Your task to perform on an android device: Search for asus zenbook on bestbuy.com, select the first entry, add it to the cart, then select checkout. Image 0: 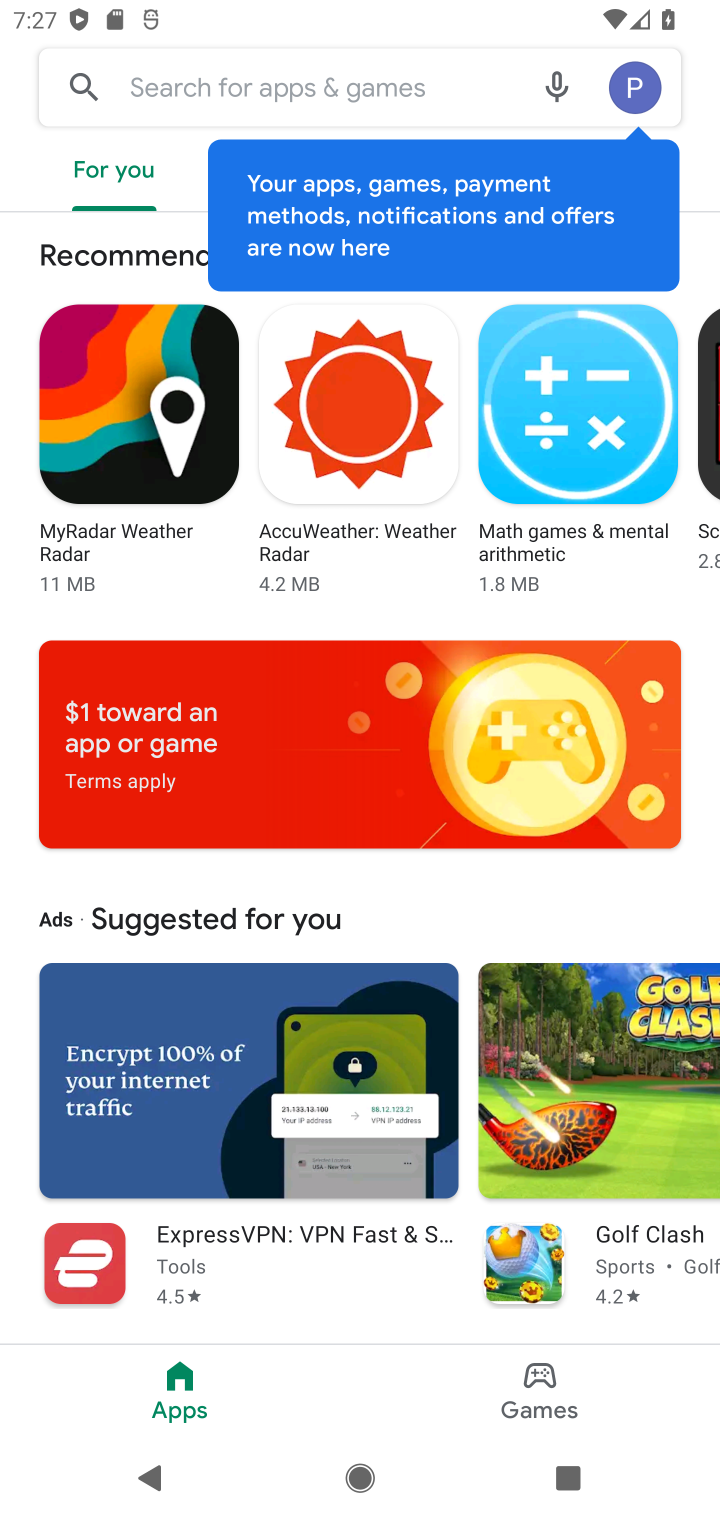
Step 0: press home button
Your task to perform on an android device: Search for asus zenbook on bestbuy.com, select the first entry, add it to the cart, then select checkout. Image 1: 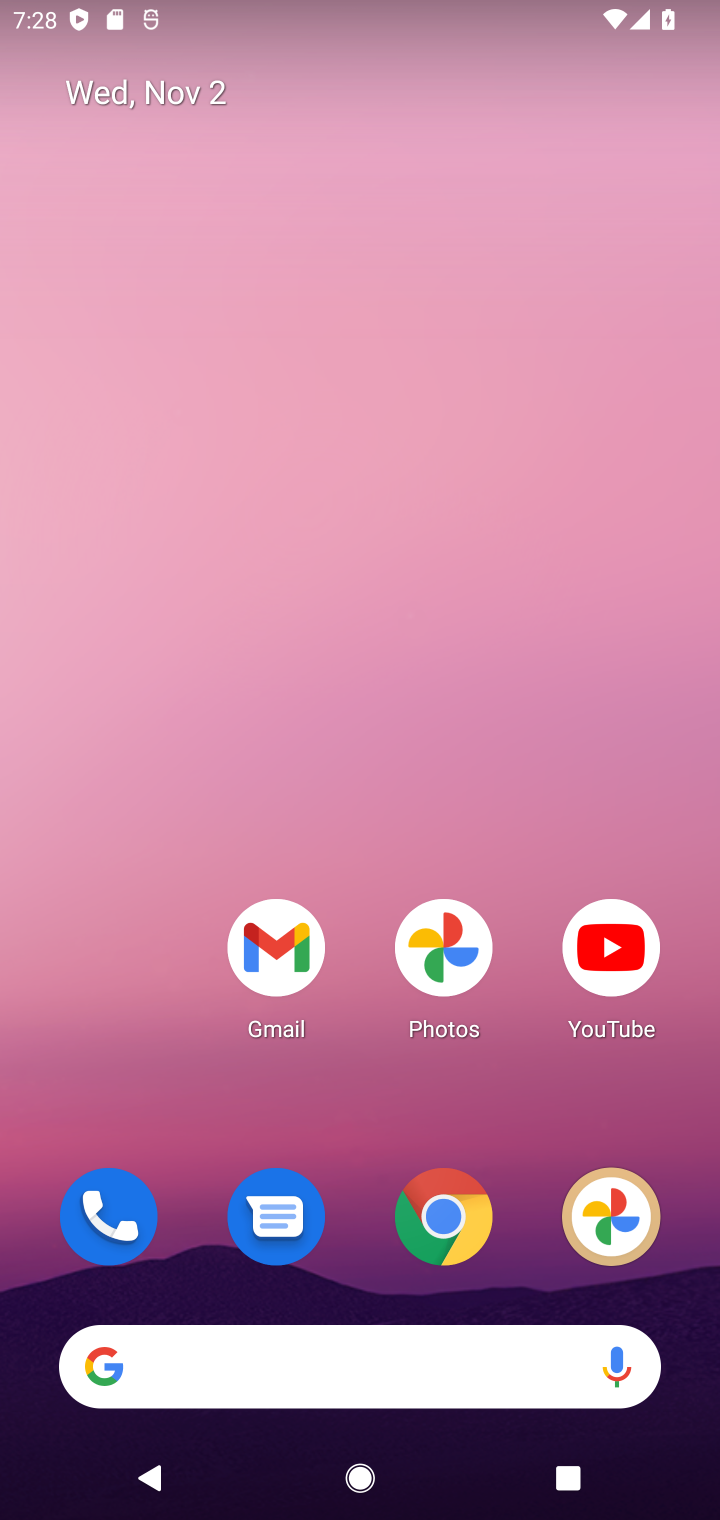
Step 1: click (446, 1226)
Your task to perform on an android device: Search for asus zenbook on bestbuy.com, select the first entry, add it to the cart, then select checkout. Image 2: 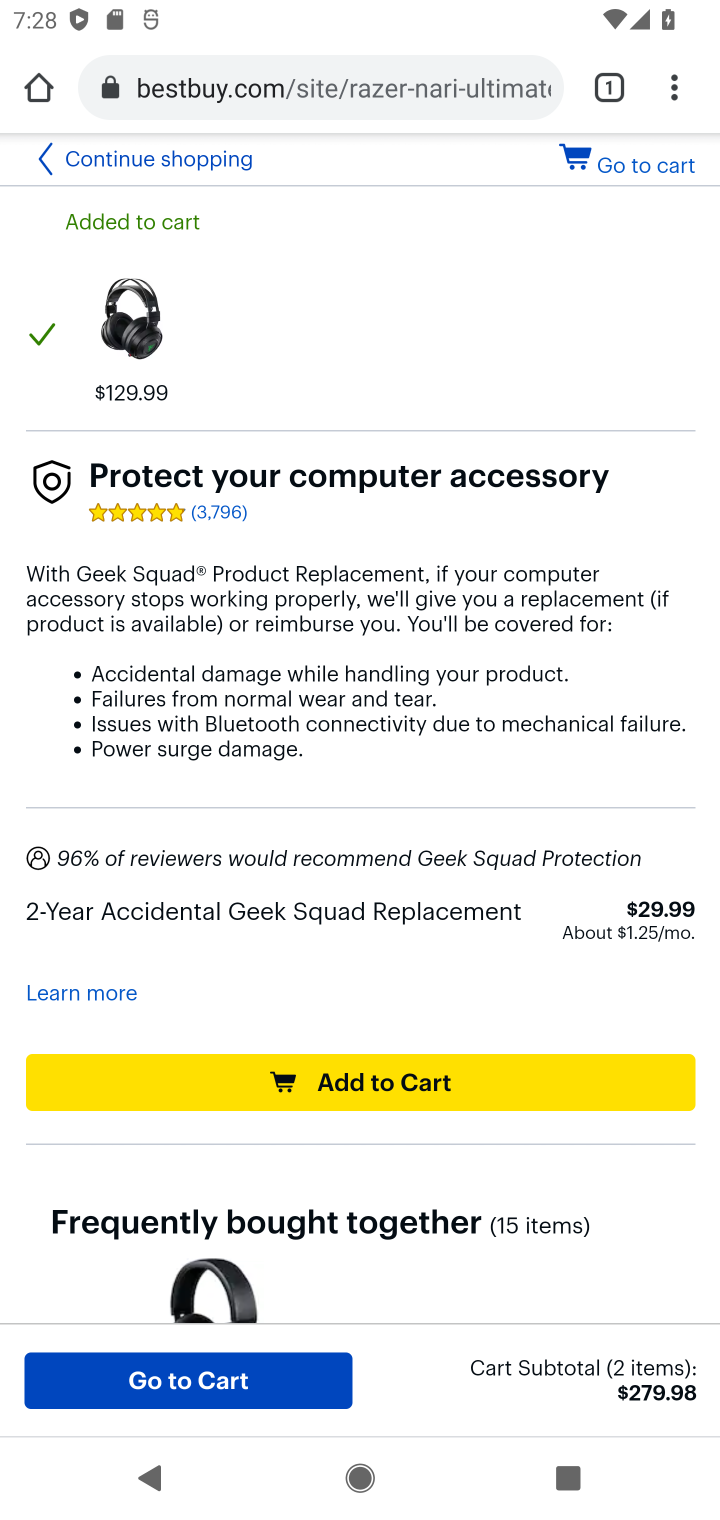
Step 2: click (335, 89)
Your task to perform on an android device: Search for asus zenbook on bestbuy.com, select the first entry, add it to the cart, then select checkout. Image 3: 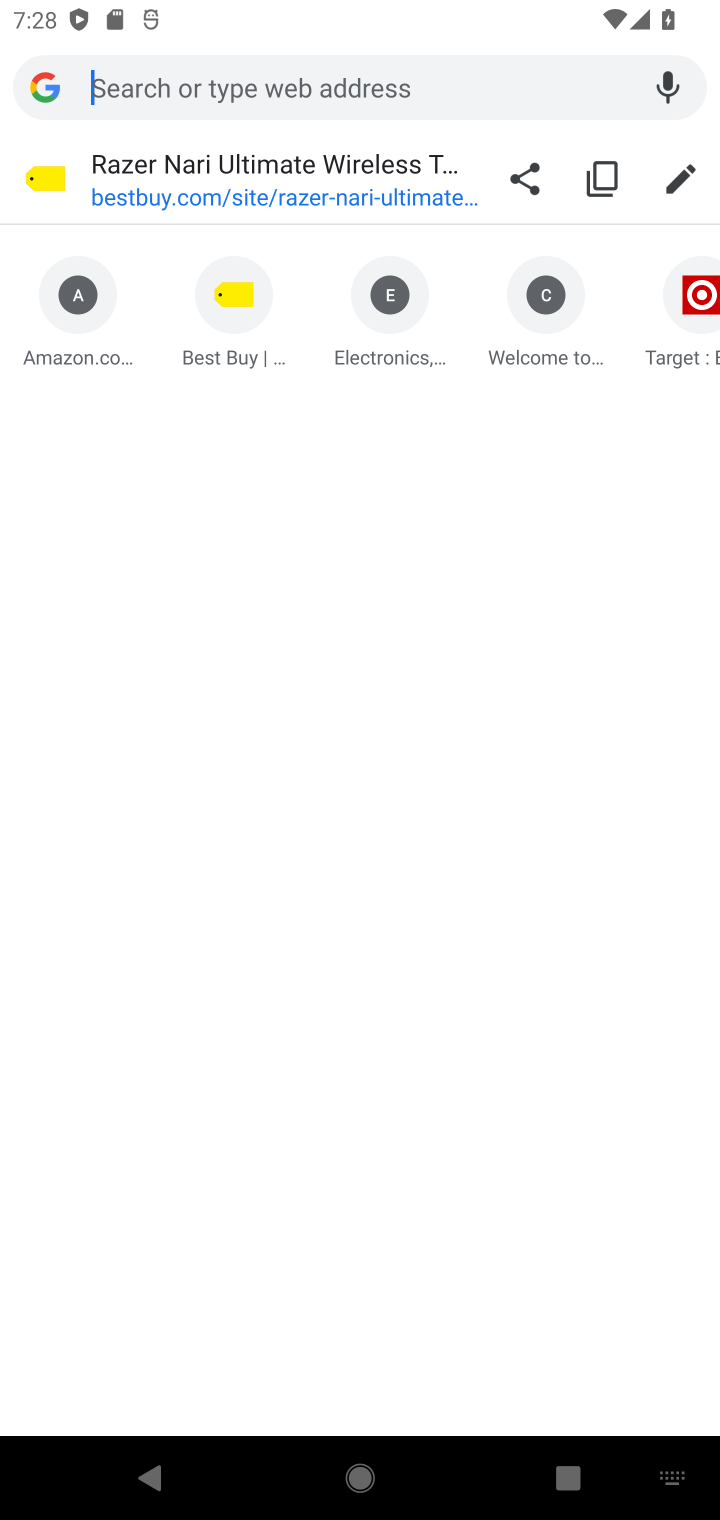
Step 3: type "bestbuy.com"
Your task to perform on an android device: Search for asus zenbook on bestbuy.com, select the first entry, add it to the cart, then select checkout. Image 4: 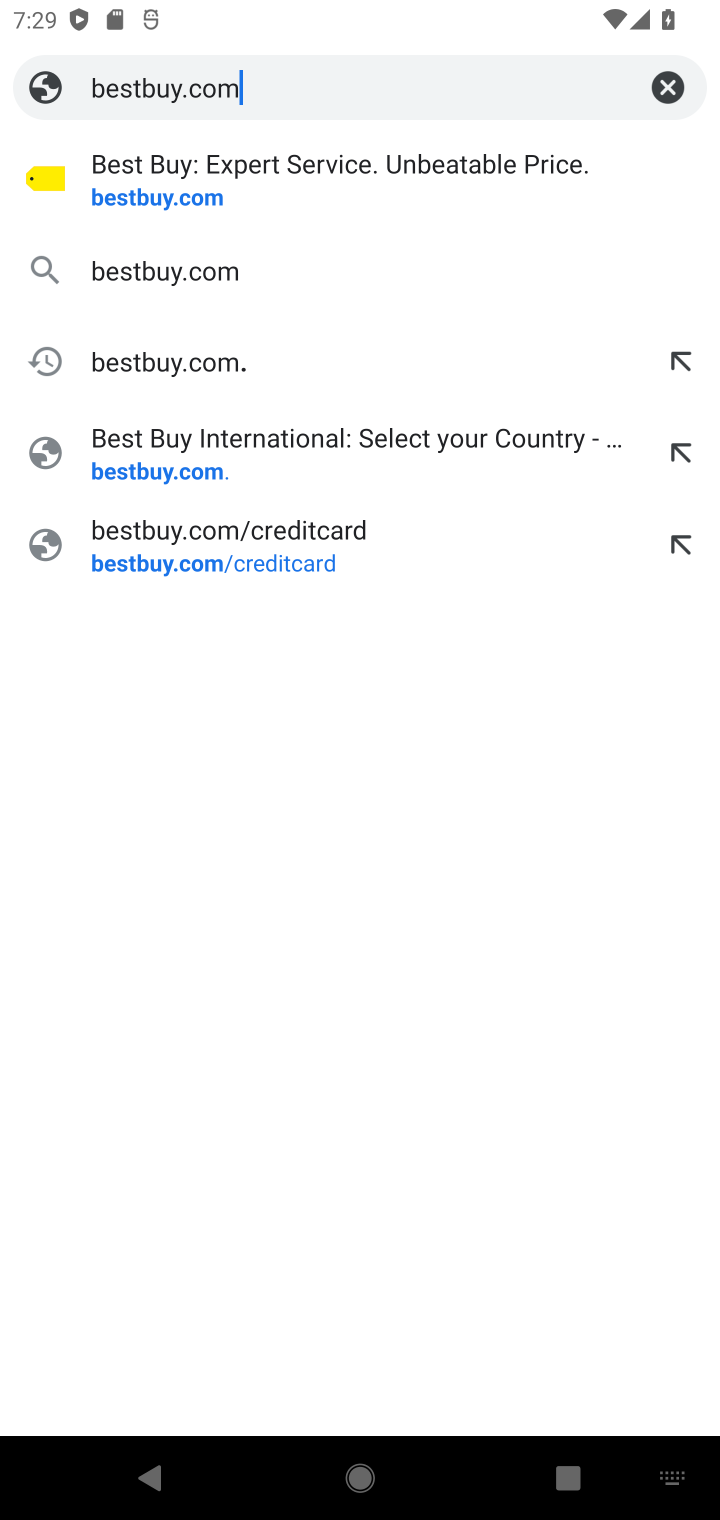
Step 4: click (245, 198)
Your task to perform on an android device: Search for asus zenbook on bestbuy.com, select the first entry, add it to the cart, then select checkout. Image 5: 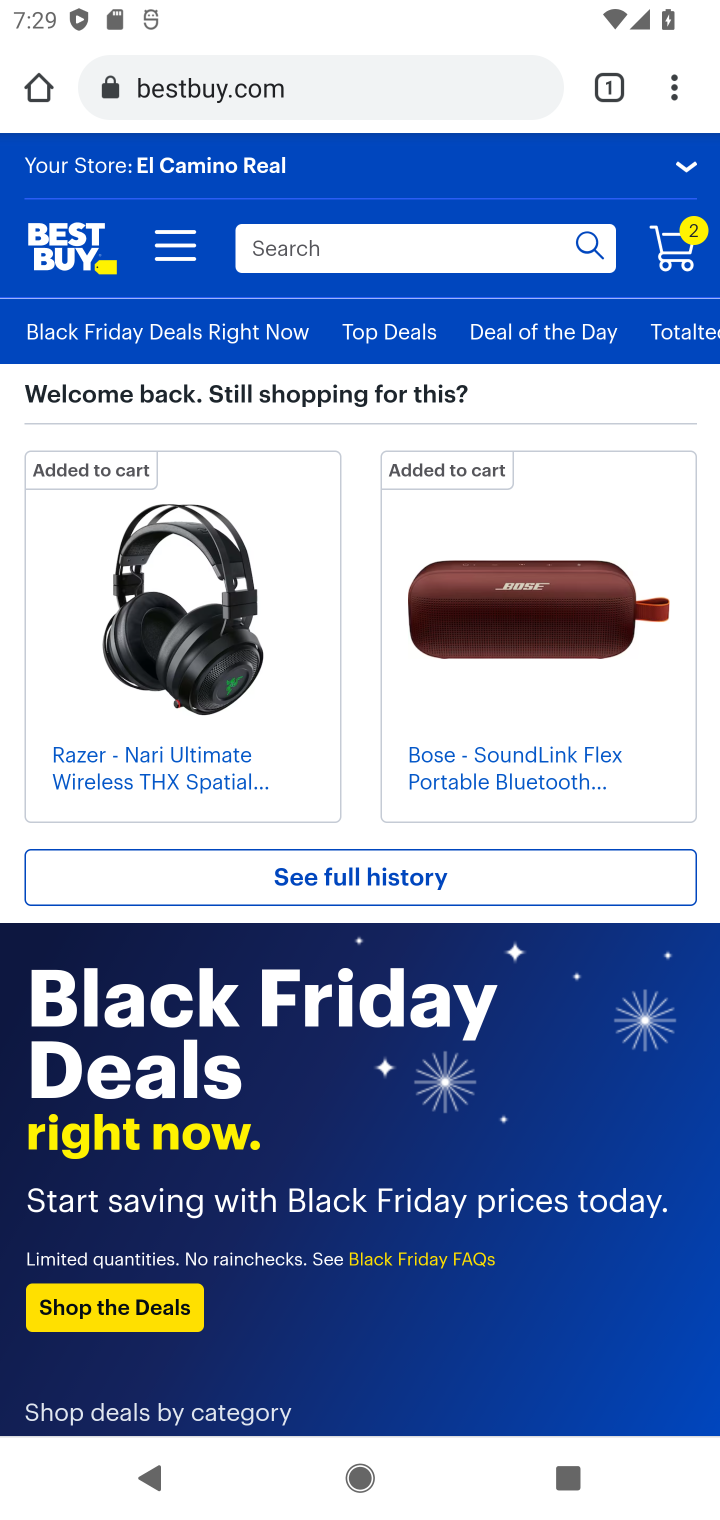
Step 5: click (345, 248)
Your task to perform on an android device: Search for asus zenbook on bestbuy.com, select the first entry, add it to the cart, then select checkout. Image 6: 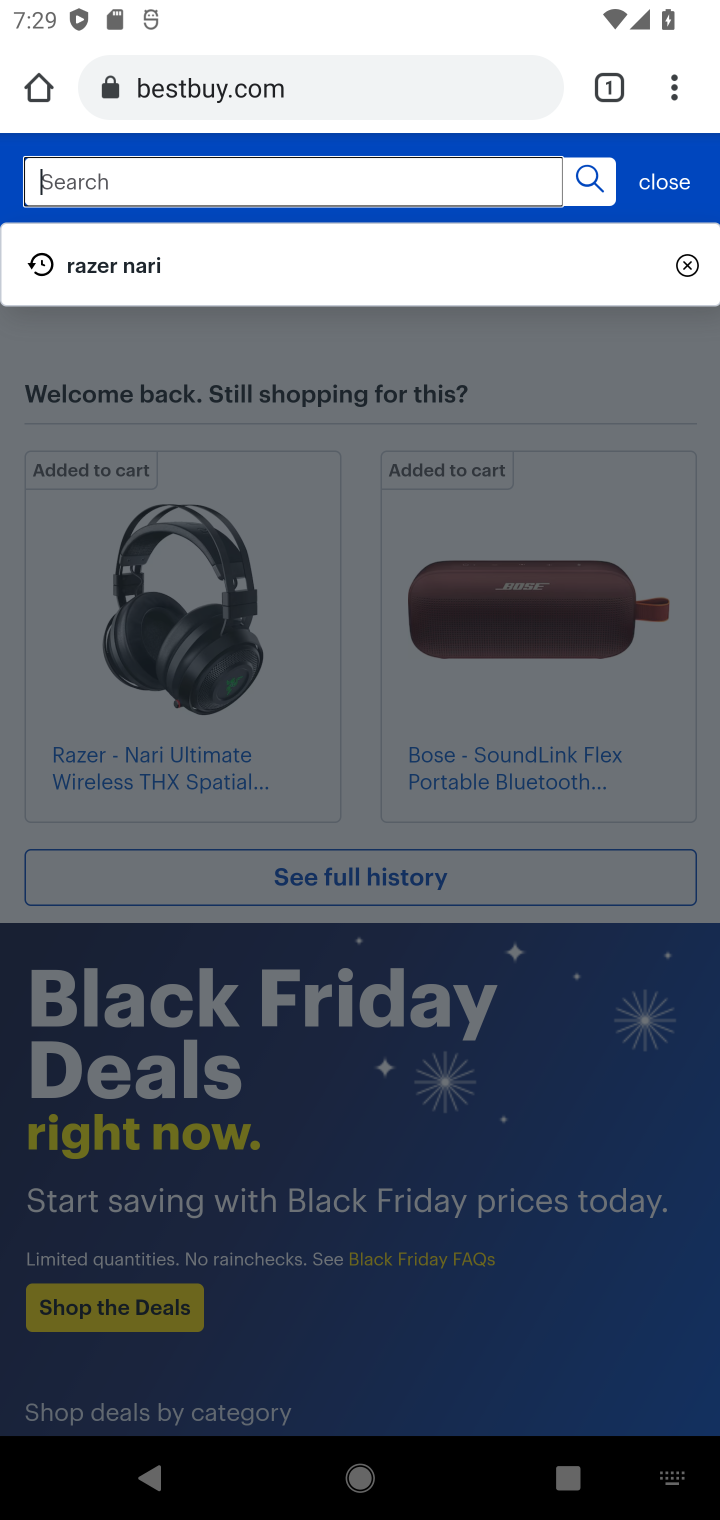
Step 6: type "asus zenbook"
Your task to perform on an android device: Search for asus zenbook on bestbuy.com, select the first entry, add it to the cart, then select checkout. Image 7: 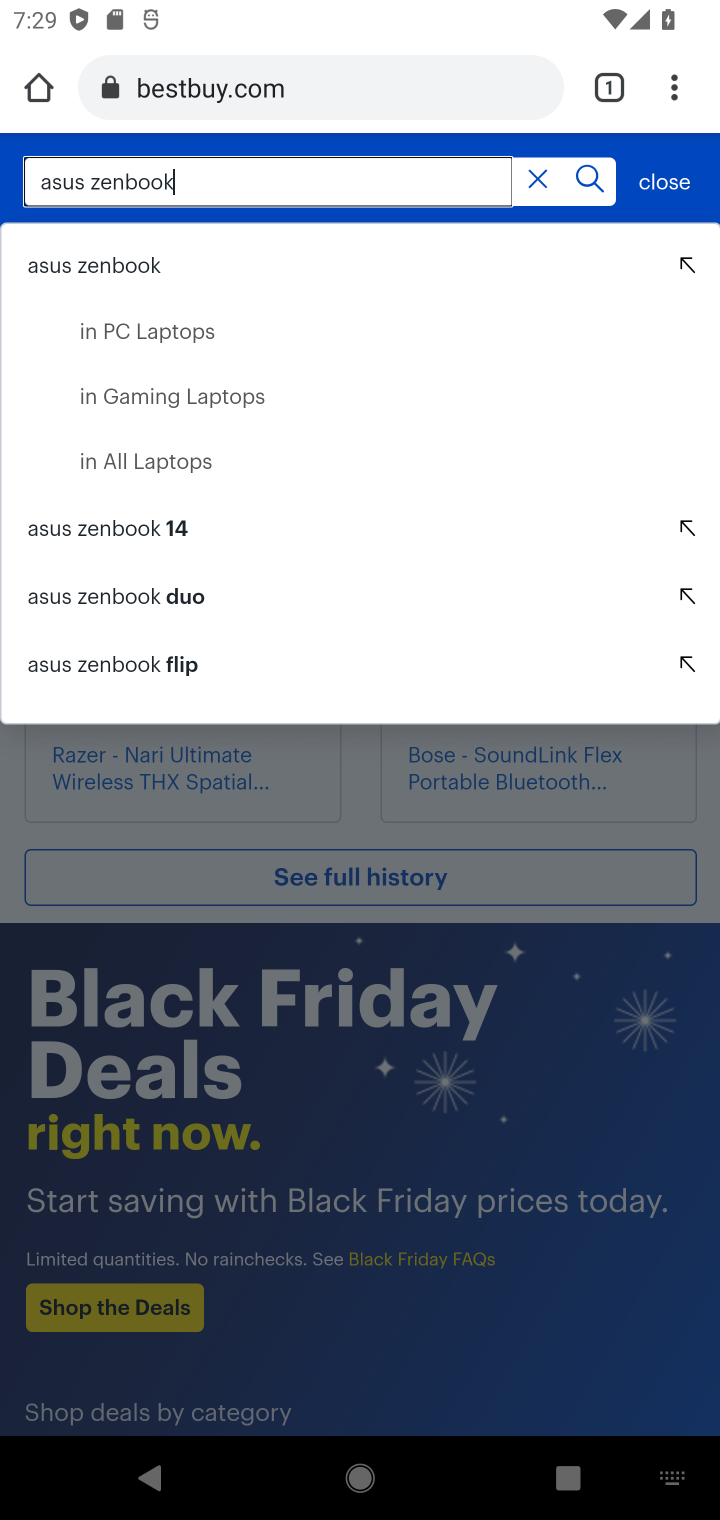
Step 7: press enter
Your task to perform on an android device: Search for asus zenbook on bestbuy.com, select the first entry, add it to the cart, then select checkout. Image 8: 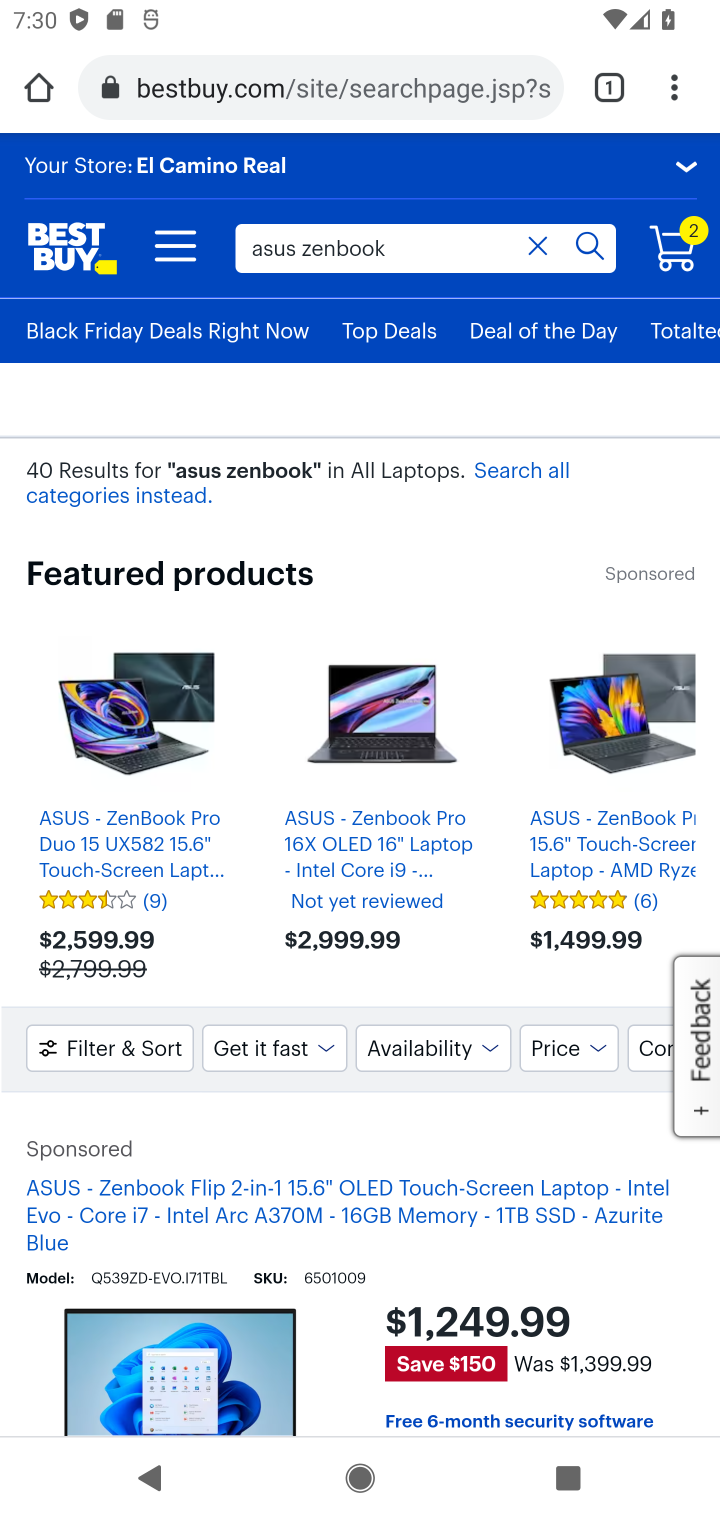
Step 8: click (250, 1237)
Your task to perform on an android device: Search for asus zenbook on bestbuy.com, select the first entry, add it to the cart, then select checkout. Image 9: 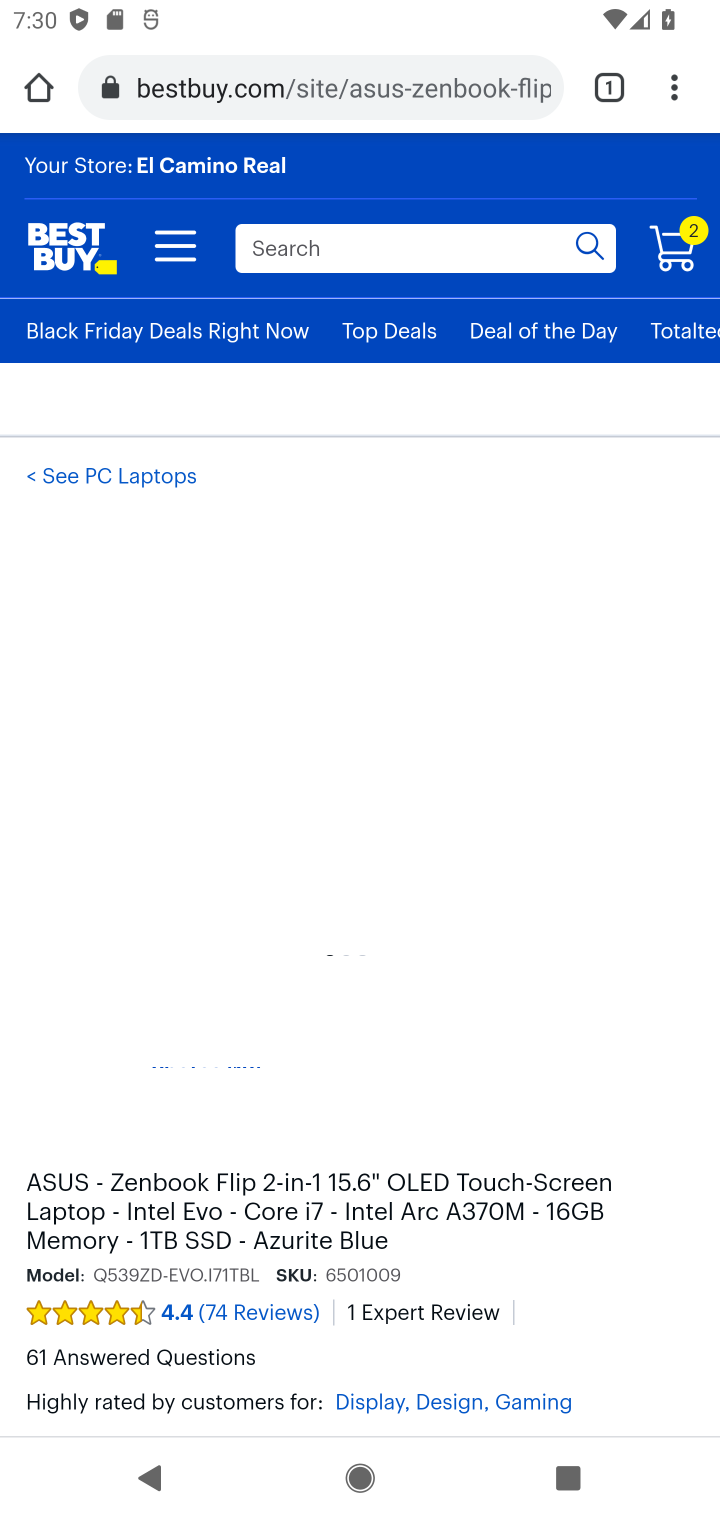
Step 9: drag from (550, 1219) to (430, 382)
Your task to perform on an android device: Search for asus zenbook on bestbuy.com, select the first entry, add it to the cart, then select checkout. Image 10: 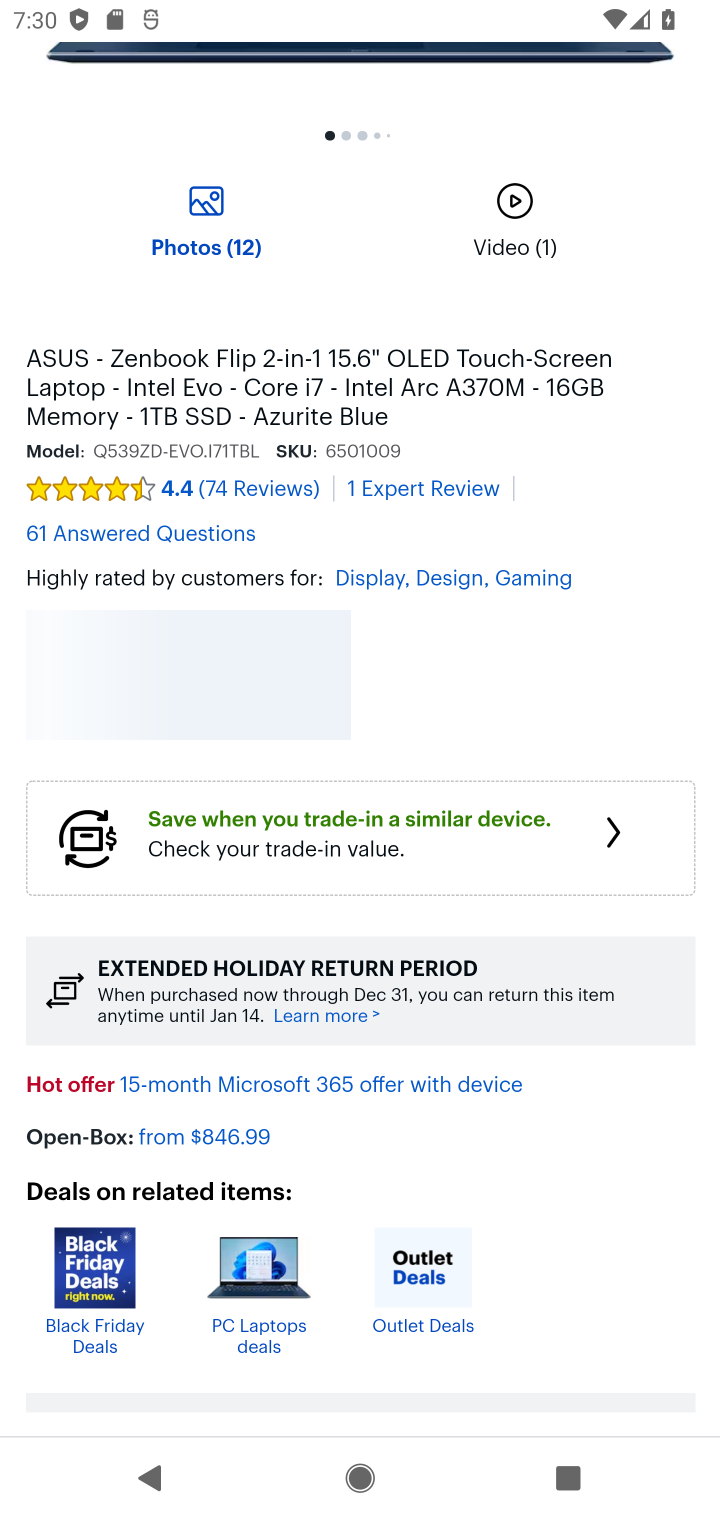
Step 10: drag from (619, 1311) to (480, 602)
Your task to perform on an android device: Search for asus zenbook on bestbuy.com, select the first entry, add it to the cart, then select checkout. Image 11: 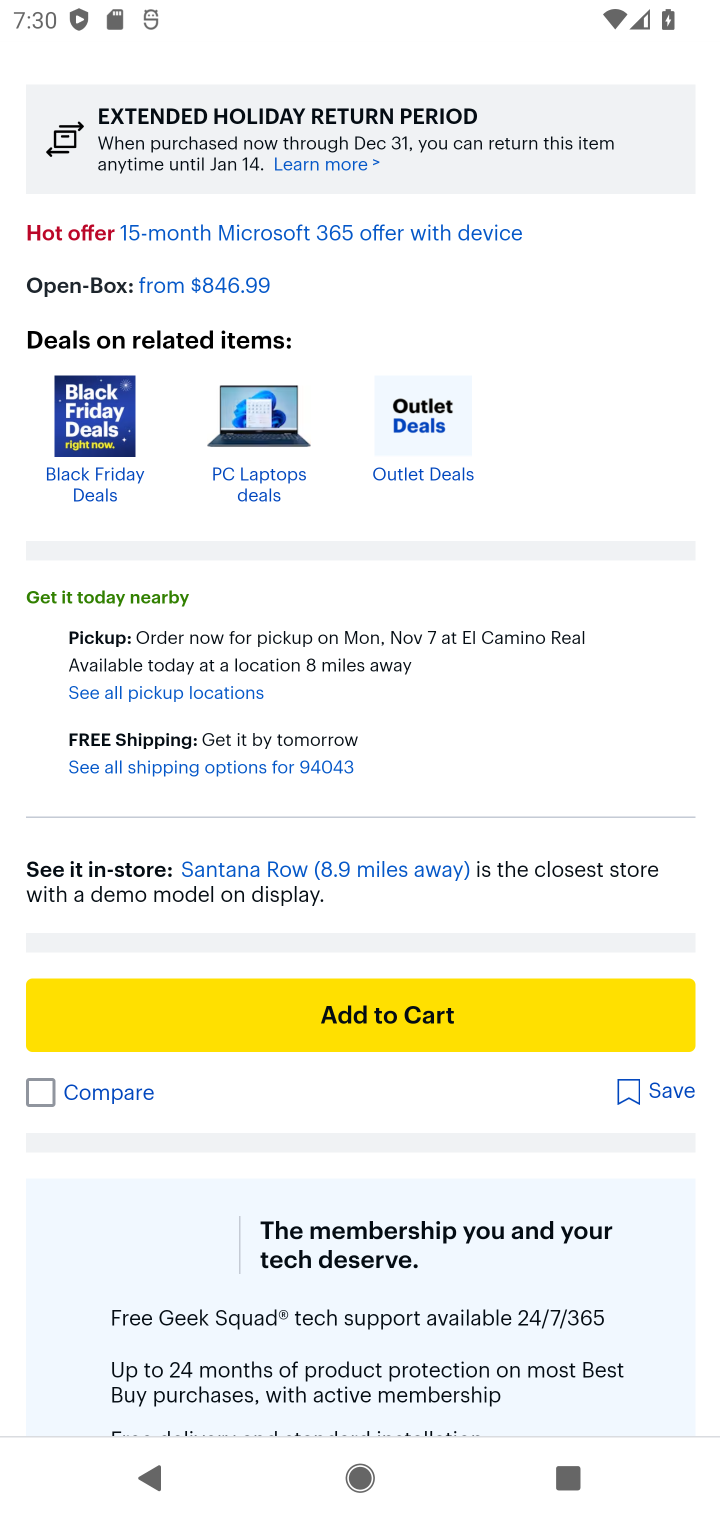
Step 11: click (389, 898)
Your task to perform on an android device: Search for asus zenbook on bestbuy.com, select the first entry, add it to the cart, then select checkout. Image 12: 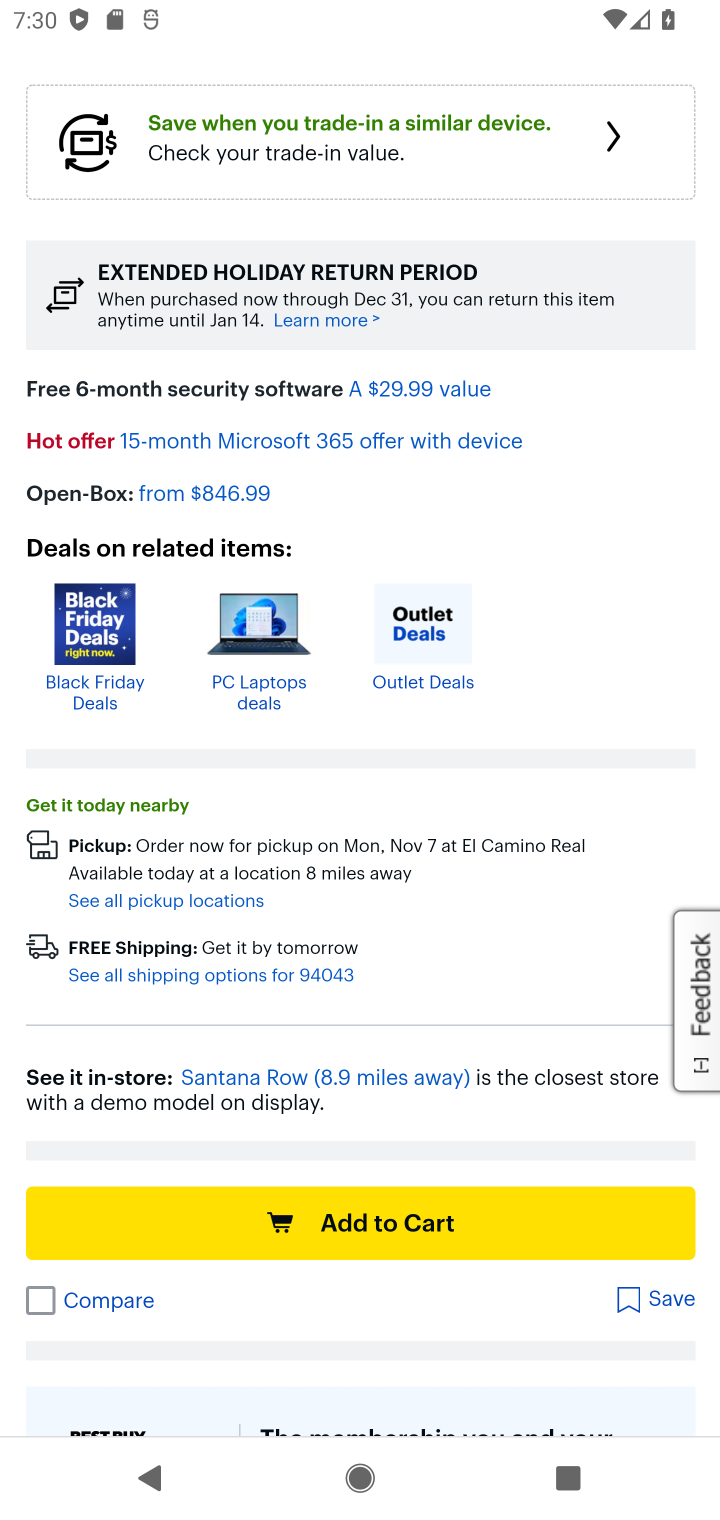
Step 12: click (351, 1239)
Your task to perform on an android device: Search for asus zenbook on bestbuy.com, select the first entry, add it to the cart, then select checkout. Image 13: 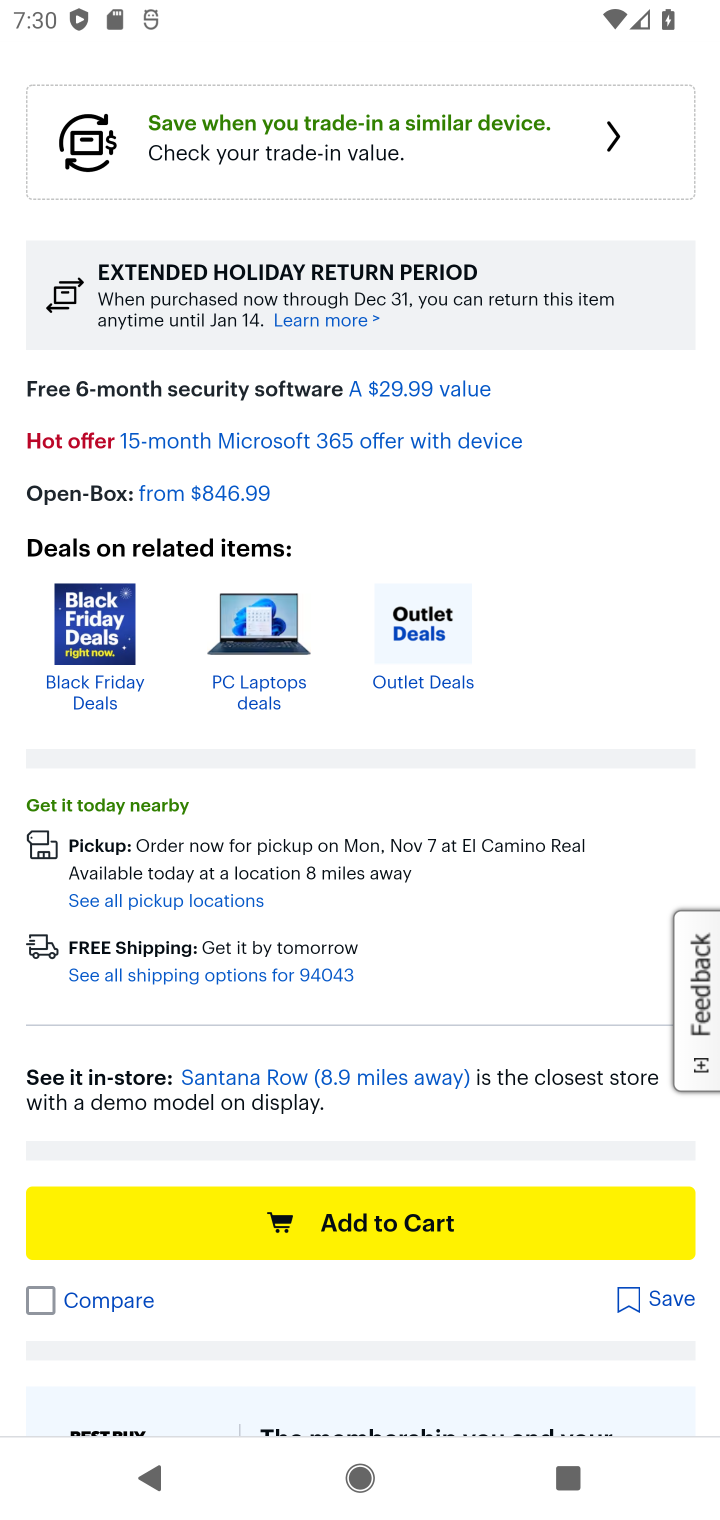
Step 13: drag from (580, 339) to (592, 1418)
Your task to perform on an android device: Search for asus zenbook on bestbuy.com, select the first entry, add it to the cart, then select checkout. Image 14: 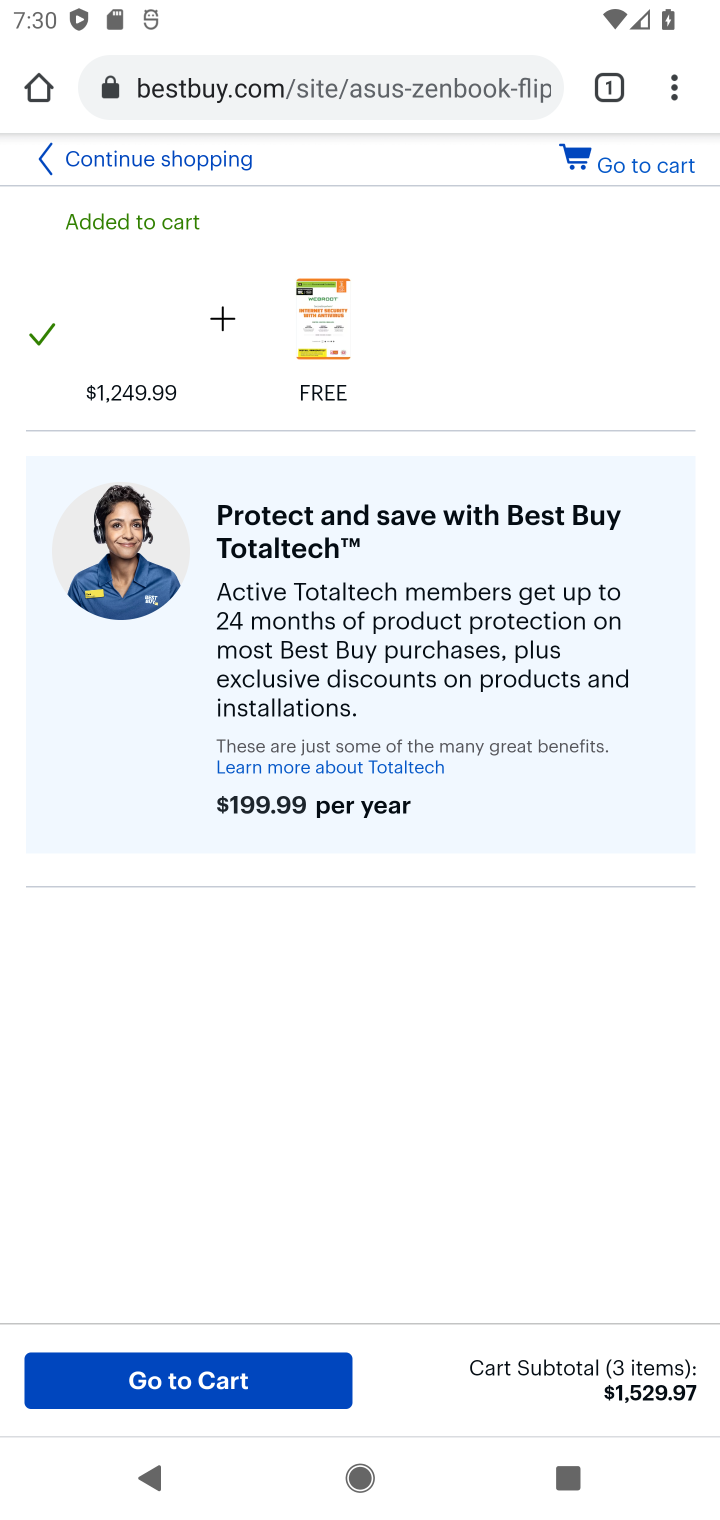
Step 14: click (639, 156)
Your task to perform on an android device: Search for asus zenbook on bestbuy.com, select the first entry, add it to the cart, then select checkout. Image 15: 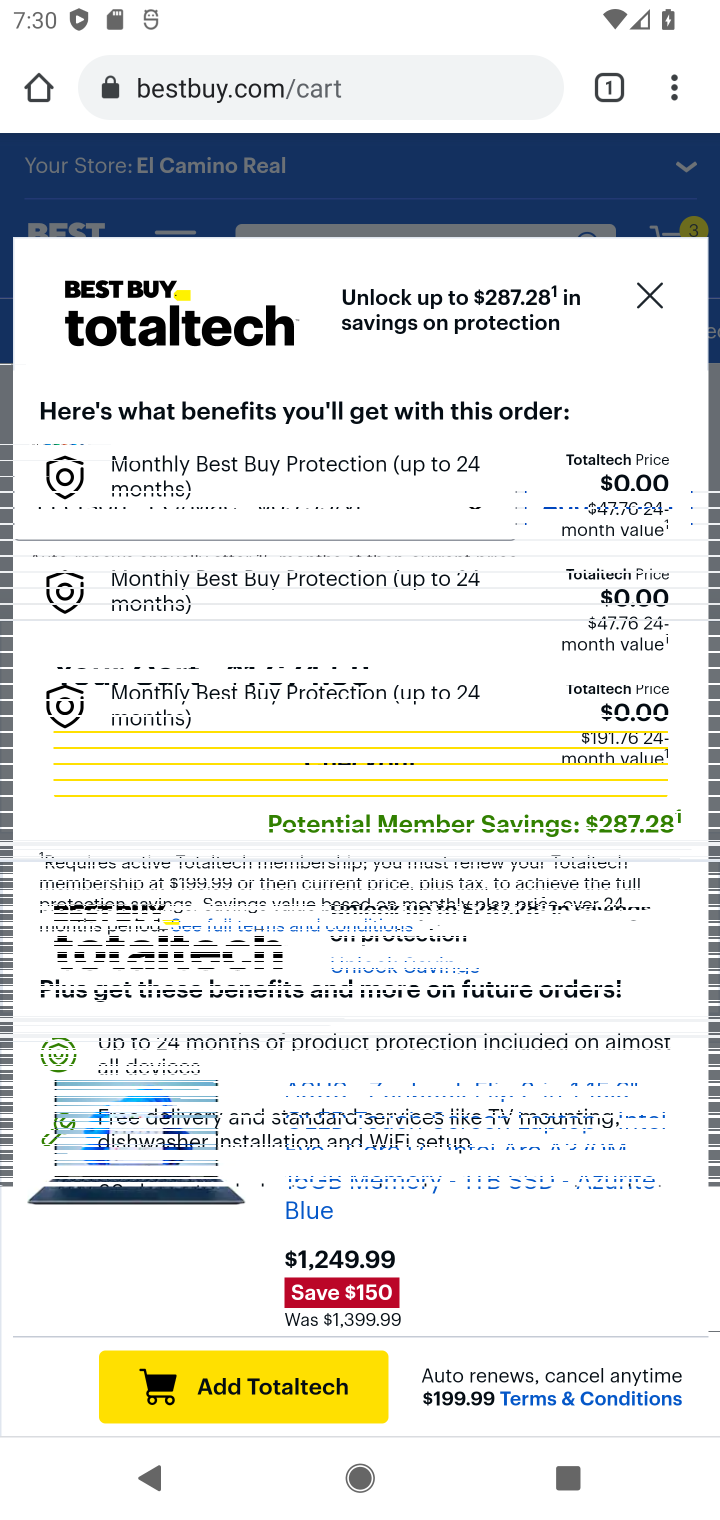
Step 15: click (648, 313)
Your task to perform on an android device: Search for asus zenbook on bestbuy.com, select the first entry, add it to the cart, then select checkout. Image 16: 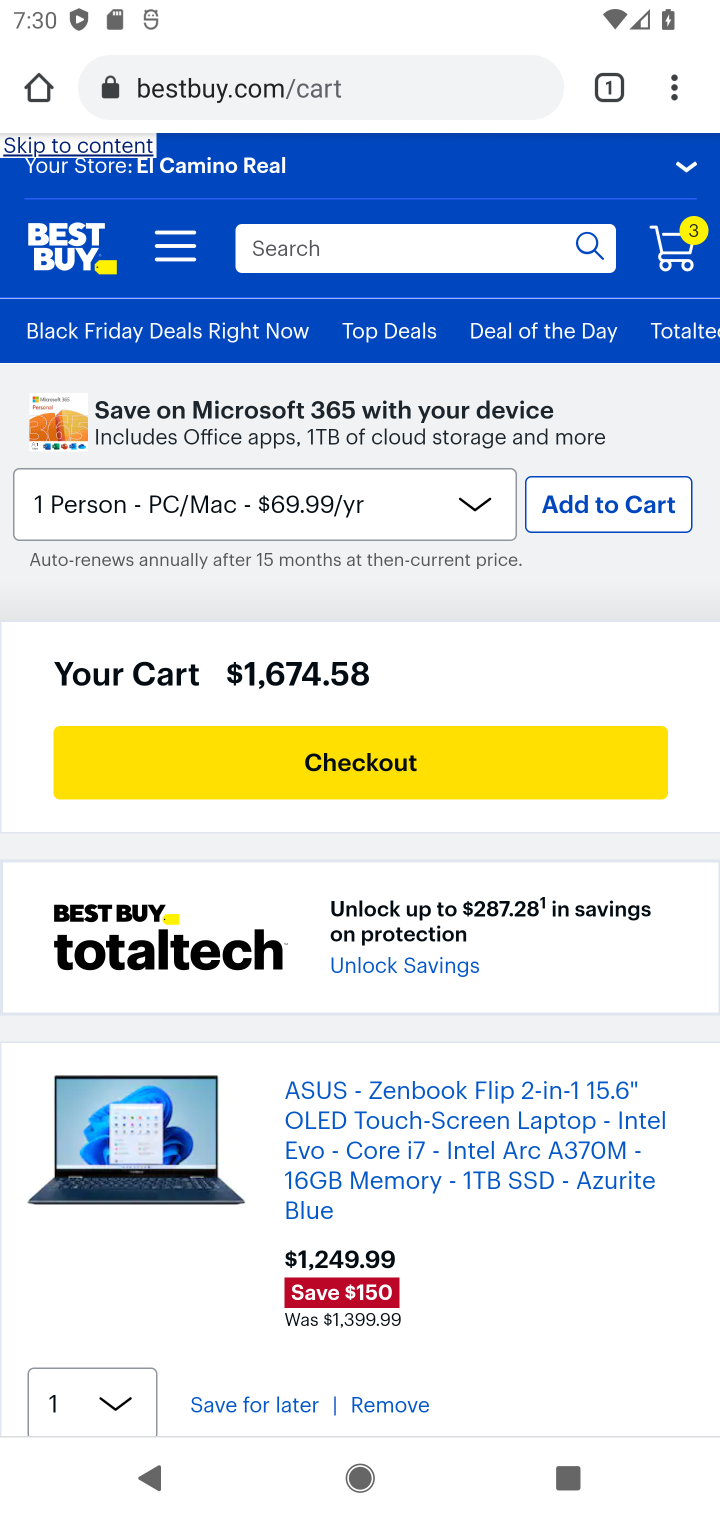
Step 16: click (687, 237)
Your task to perform on an android device: Search for asus zenbook on bestbuy.com, select the first entry, add it to the cart, then select checkout. Image 17: 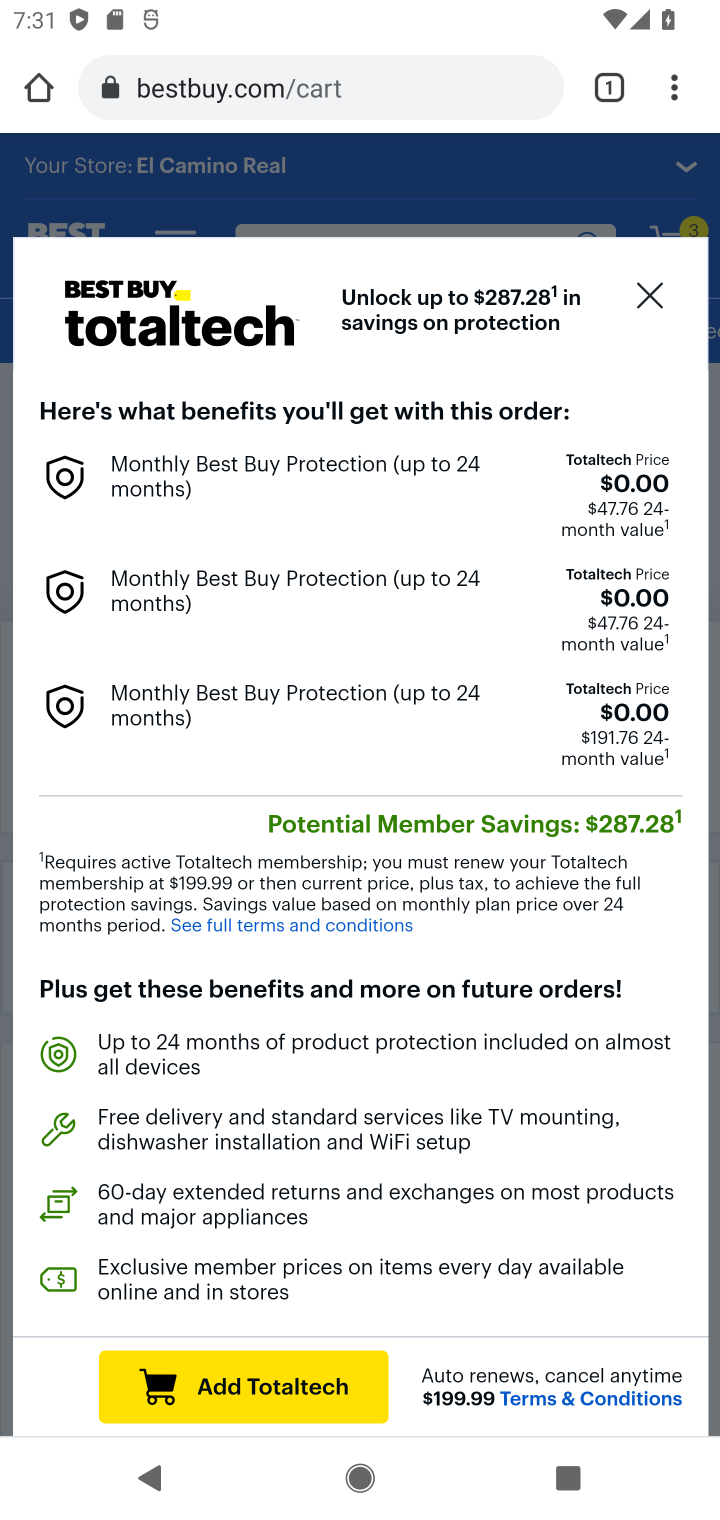
Step 17: click (649, 300)
Your task to perform on an android device: Search for asus zenbook on bestbuy.com, select the first entry, add it to the cart, then select checkout. Image 18: 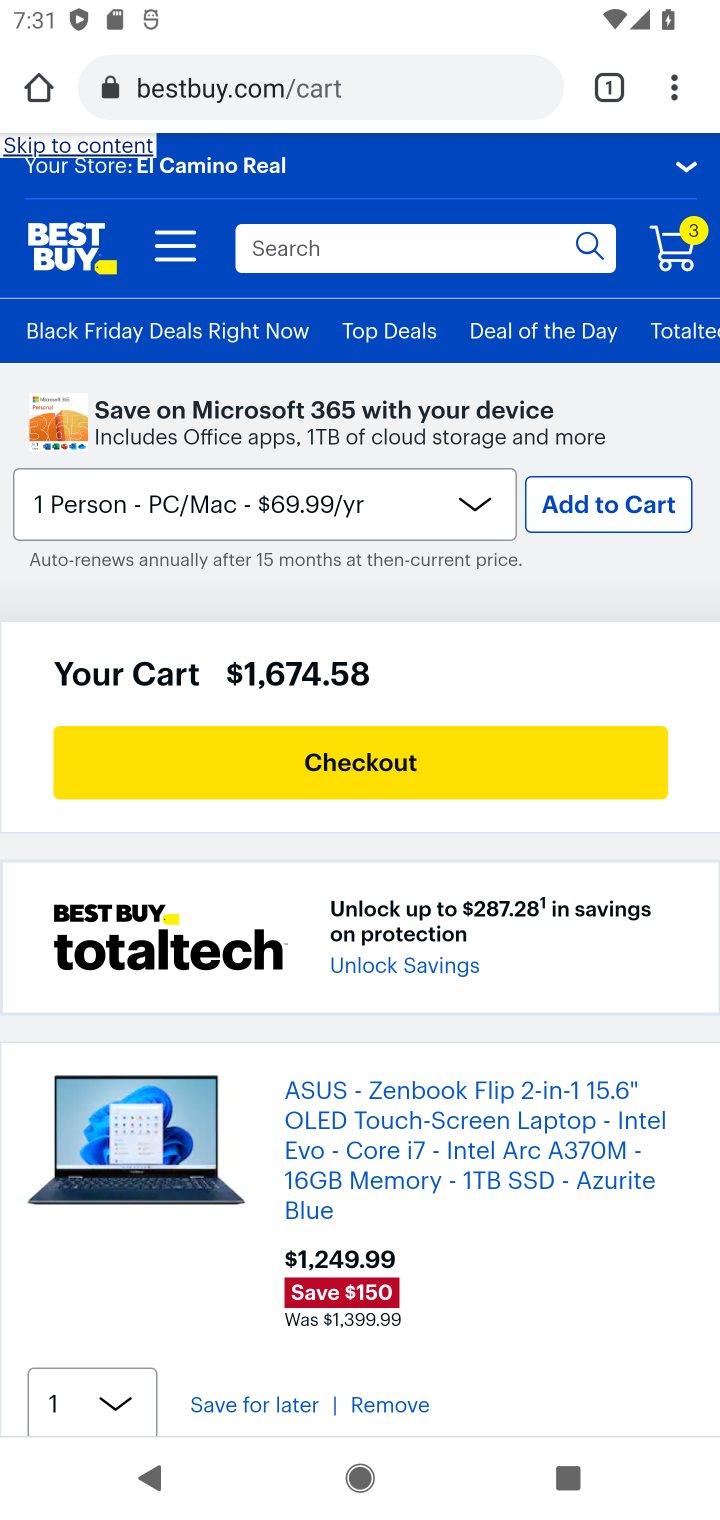
Step 18: click (459, 749)
Your task to perform on an android device: Search for asus zenbook on bestbuy.com, select the first entry, add it to the cart, then select checkout. Image 19: 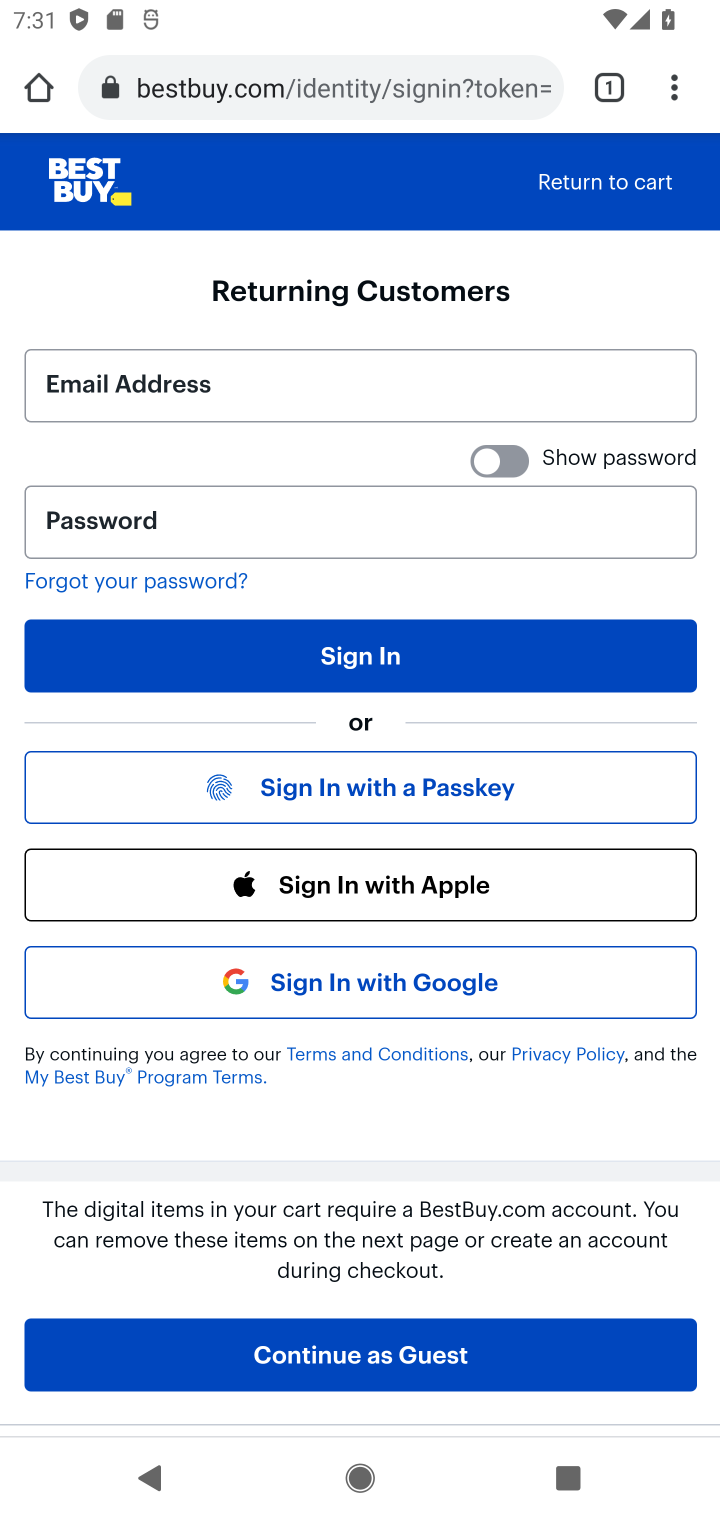
Step 19: task complete